Your task to perform on an android device: Open calendar and show me the fourth week of next month Image 0: 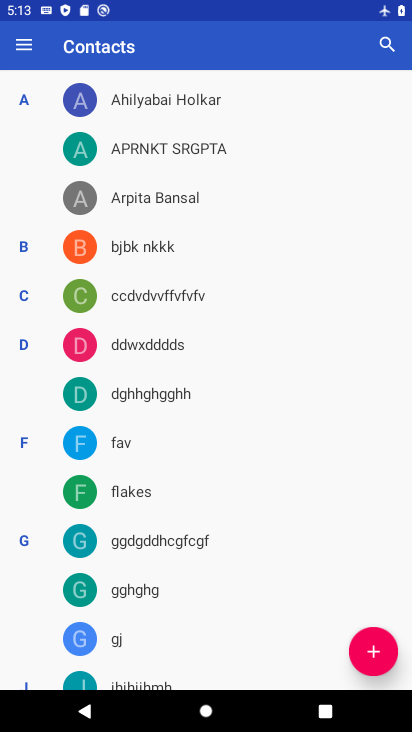
Step 0: press home button
Your task to perform on an android device: Open calendar and show me the fourth week of next month Image 1: 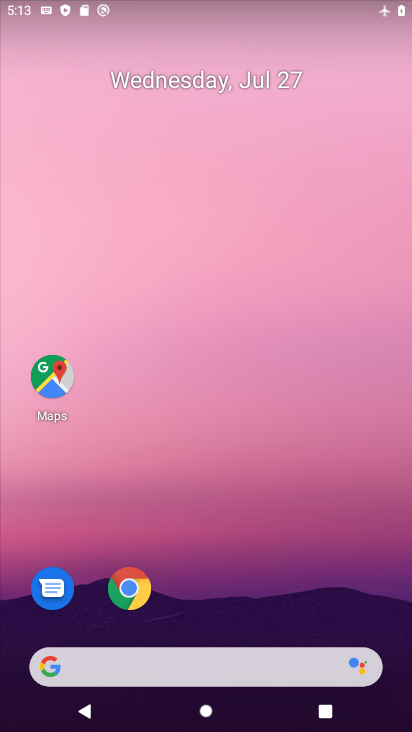
Step 1: drag from (290, 655) to (327, 11)
Your task to perform on an android device: Open calendar and show me the fourth week of next month Image 2: 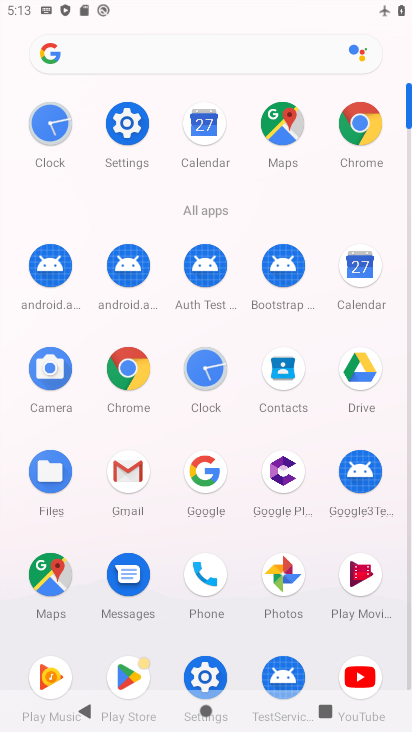
Step 2: click (360, 265)
Your task to perform on an android device: Open calendar and show me the fourth week of next month Image 3: 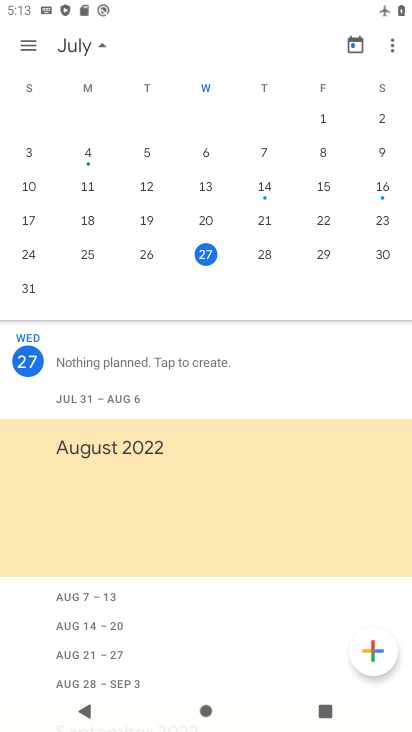
Step 3: drag from (343, 201) to (4, 518)
Your task to perform on an android device: Open calendar and show me the fourth week of next month Image 4: 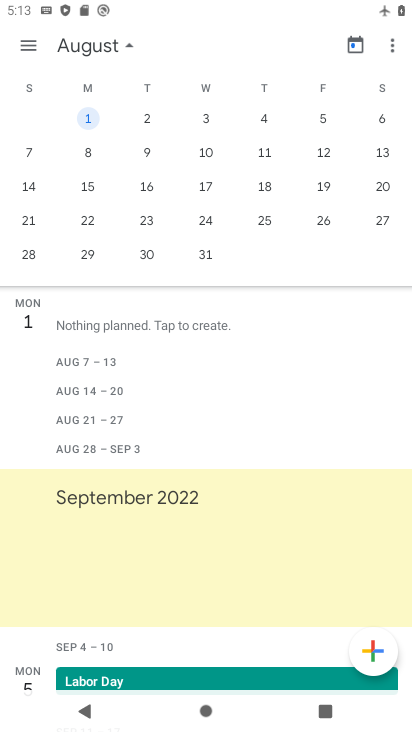
Step 4: click (203, 219)
Your task to perform on an android device: Open calendar and show me the fourth week of next month Image 5: 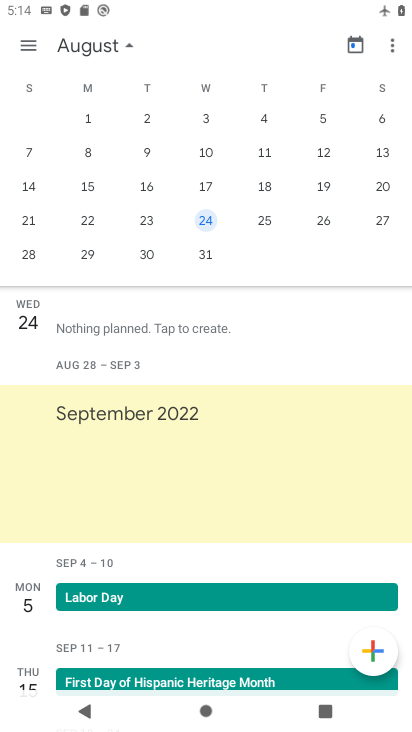
Step 5: task complete